Your task to perform on an android device: Turn off the flashlight Image 0: 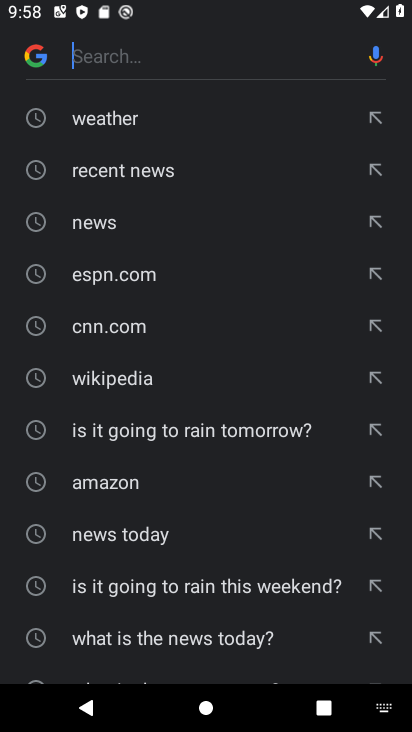
Step 0: task impossible